Your task to perform on an android device: Search for the new lego star wars 2021 on Target Image 0: 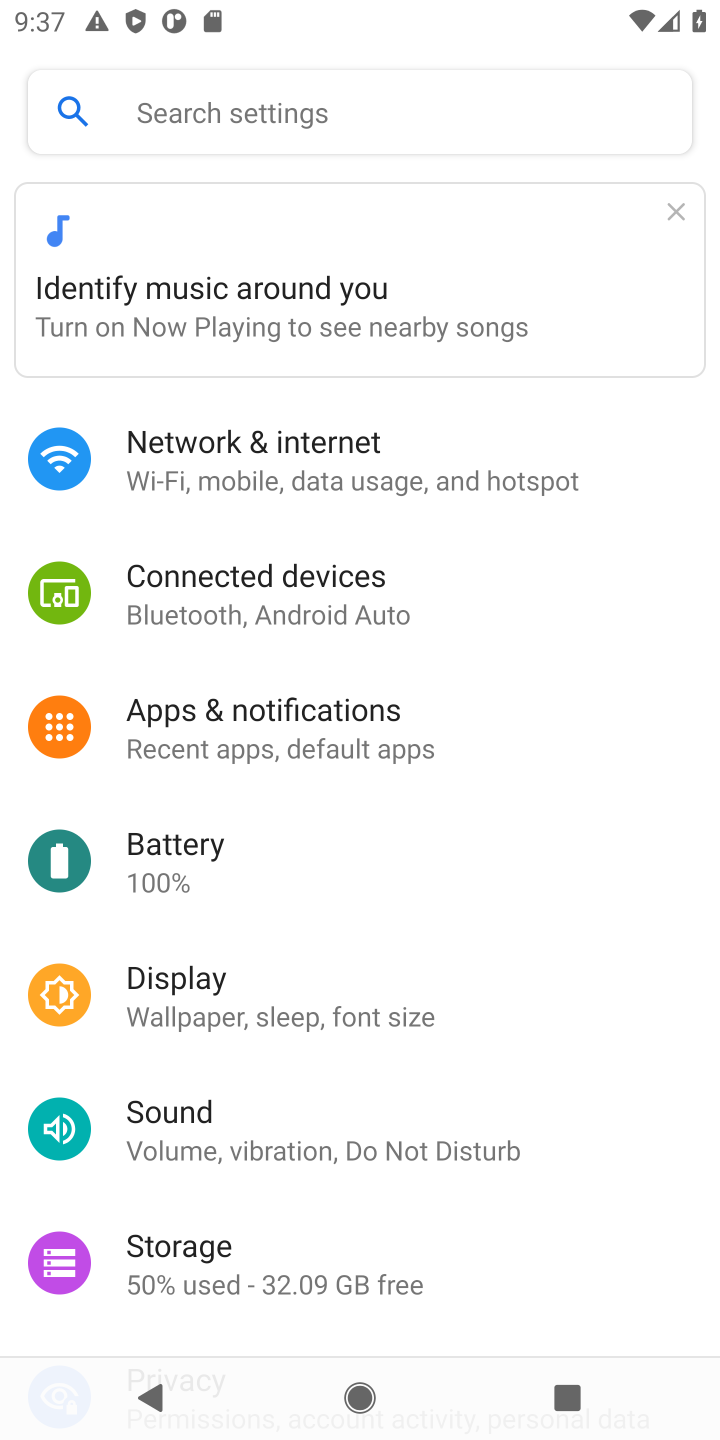
Step 0: press home button
Your task to perform on an android device: Search for the new lego star wars 2021 on Target Image 1: 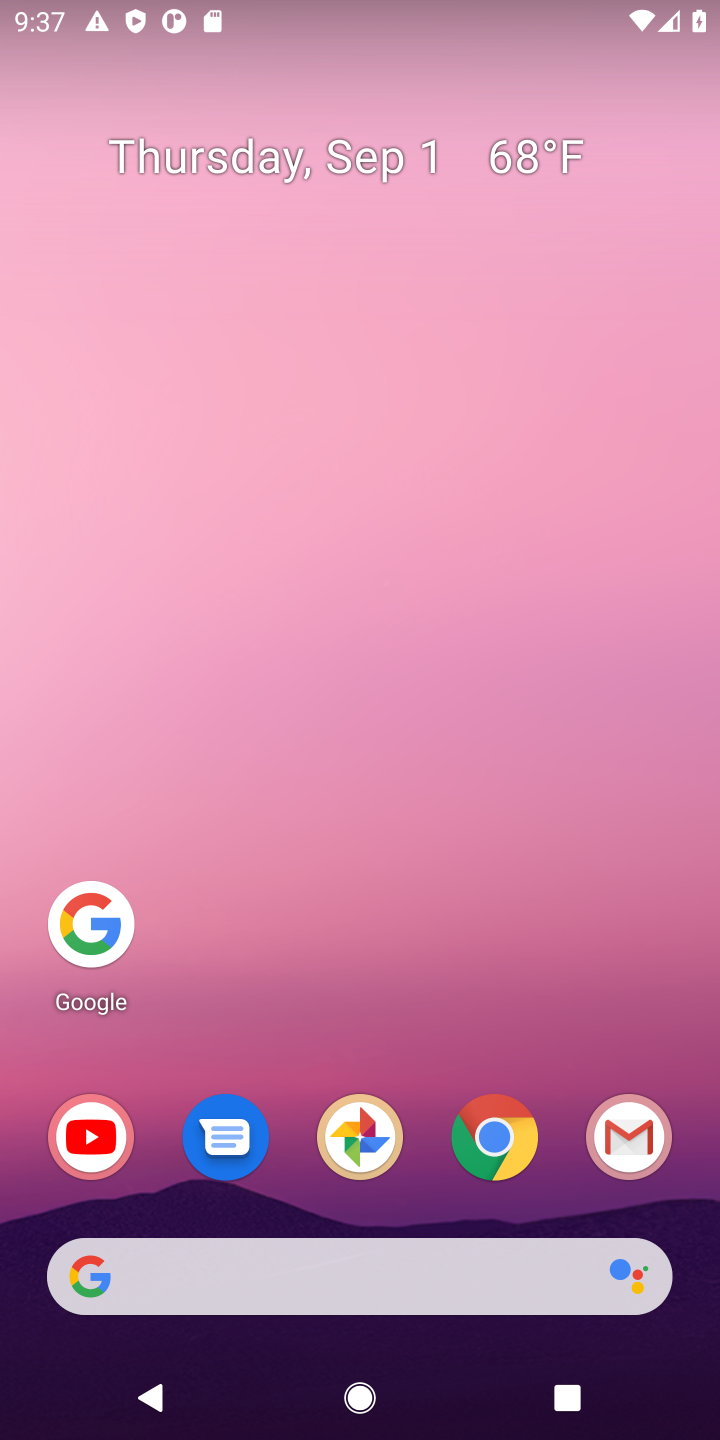
Step 1: click (60, 910)
Your task to perform on an android device: Search for the new lego star wars 2021 on Target Image 2: 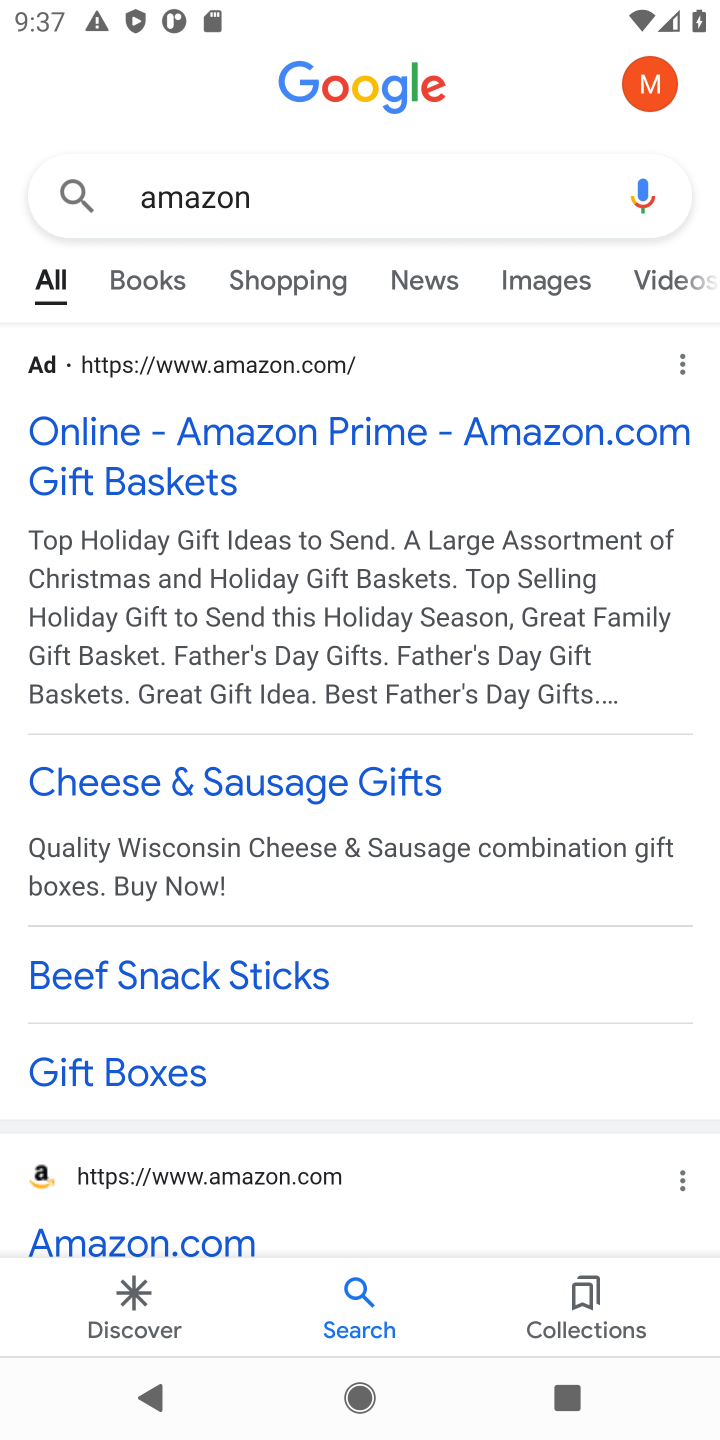
Step 2: click (387, 198)
Your task to perform on an android device: Search for the new lego star wars 2021 on Target Image 3: 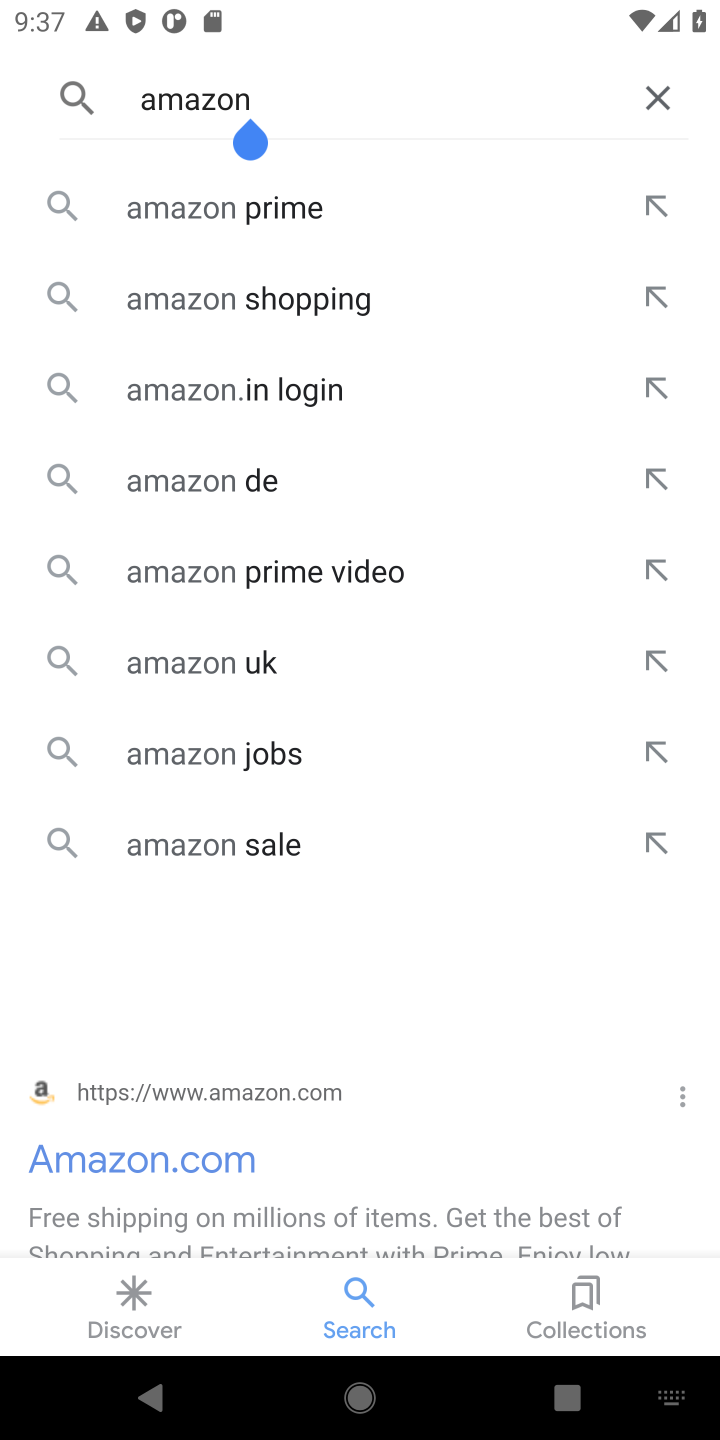
Step 3: click (387, 198)
Your task to perform on an android device: Search for the new lego star wars 2021 on Target Image 4: 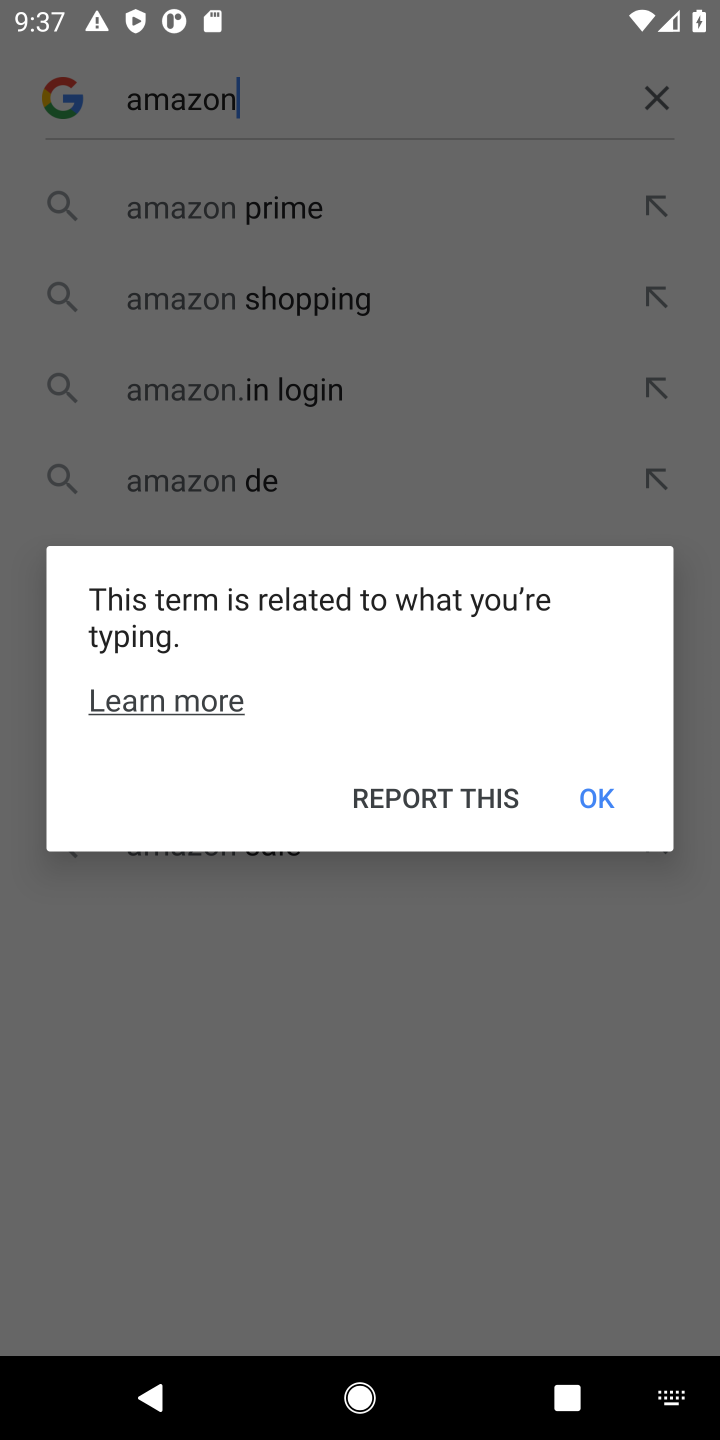
Step 4: click (652, 94)
Your task to perform on an android device: Search for the new lego star wars 2021 on Target Image 5: 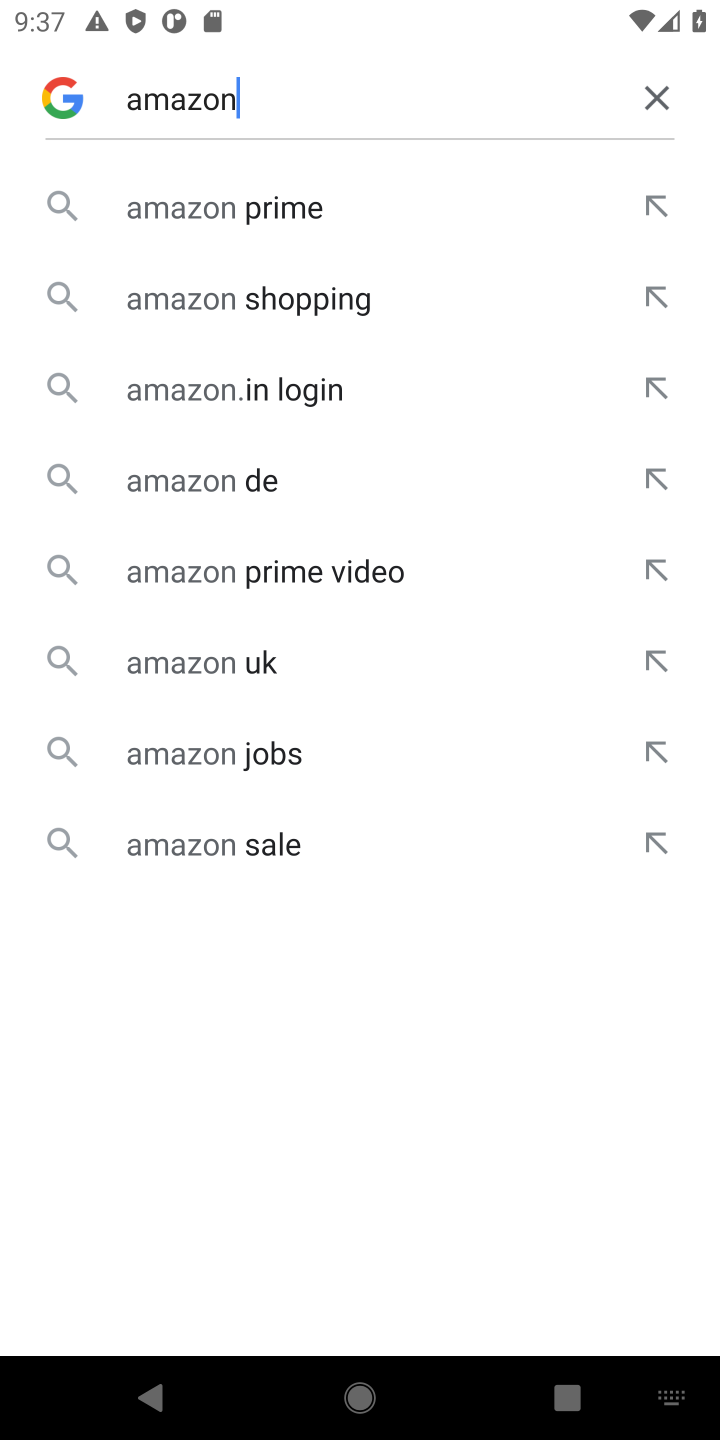
Step 5: click (649, 90)
Your task to perform on an android device: Search for the new lego star wars 2021 on Target Image 6: 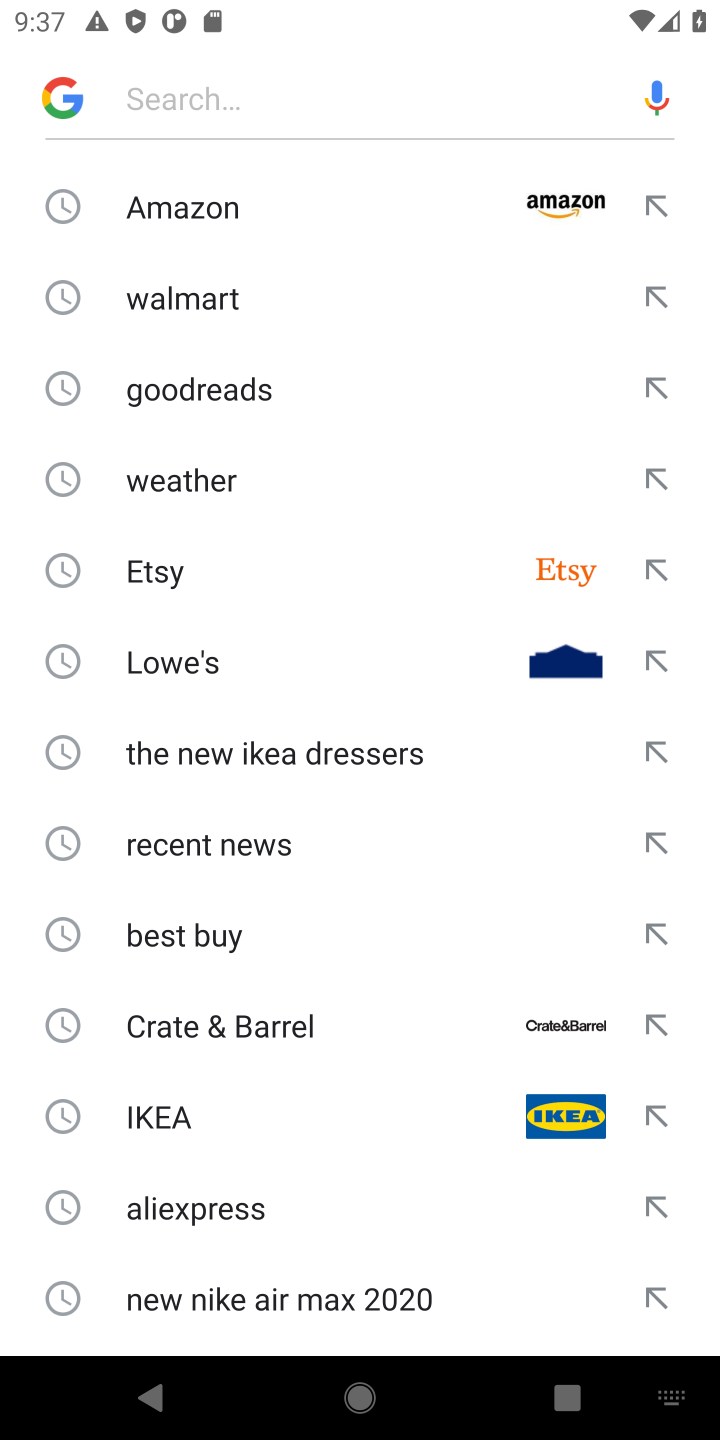
Step 6: type "target"
Your task to perform on an android device: Search for the new lego star wars 2021 on Target Image 7: 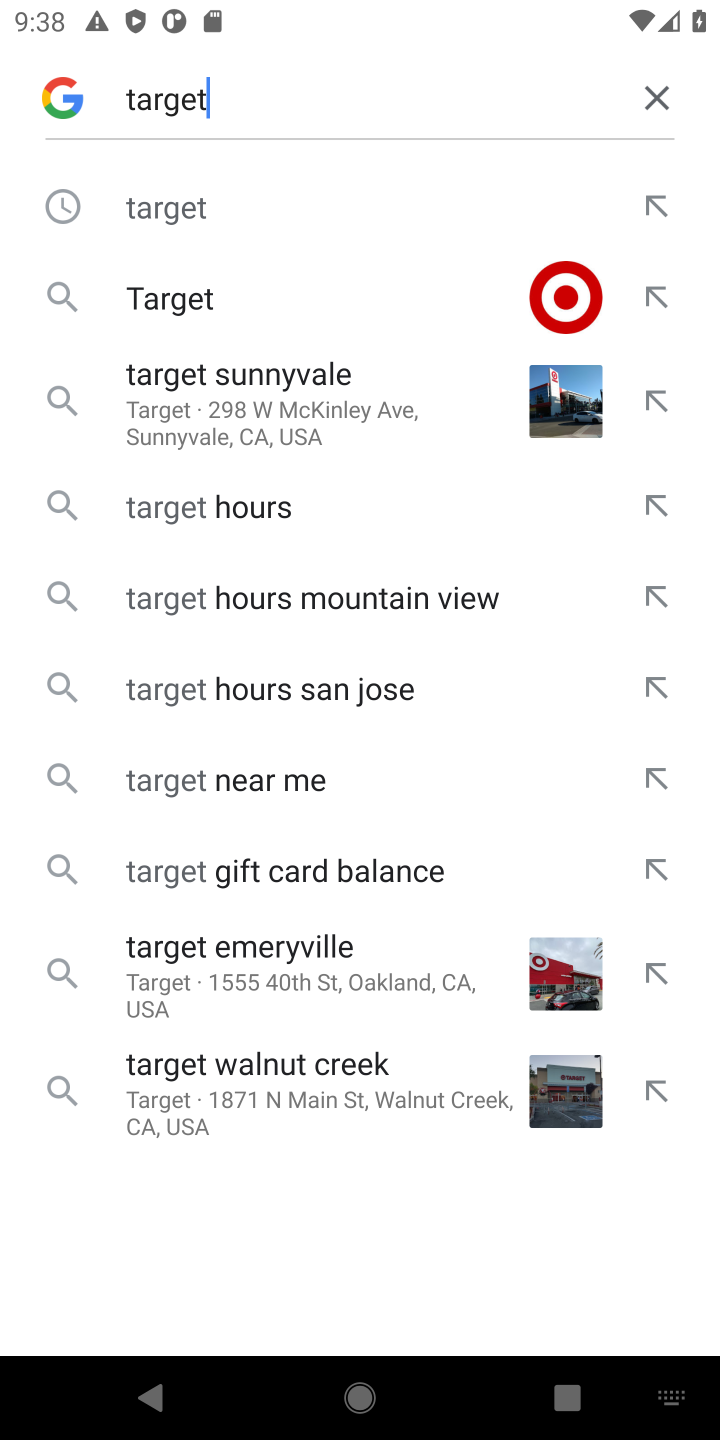
Step 7: click (183, 197)
Your task to perform on an android device: Search for the new lego star wars 2021 on Target Image 8: 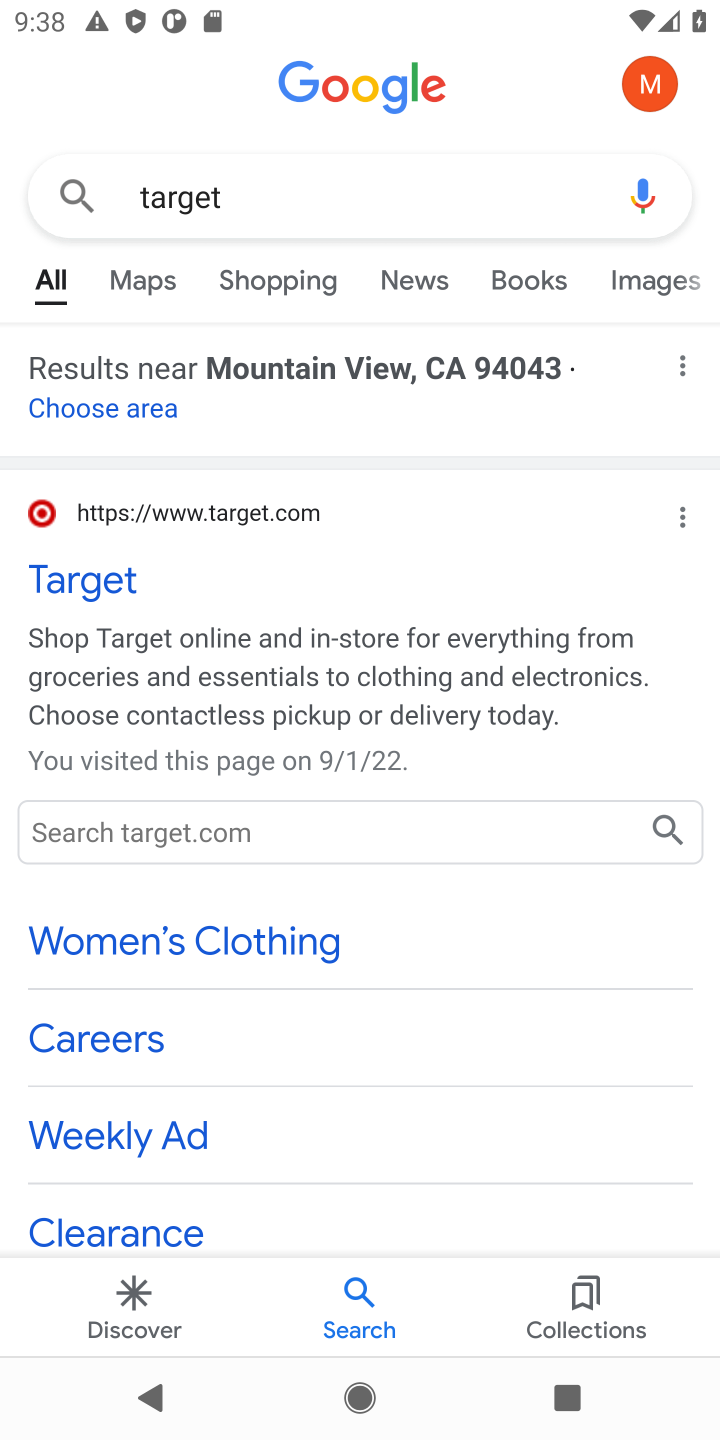
Step 8: click (93, 580)
Your task to perform on an android device: Search for the new lego star wars 2021 on Target Image 9: 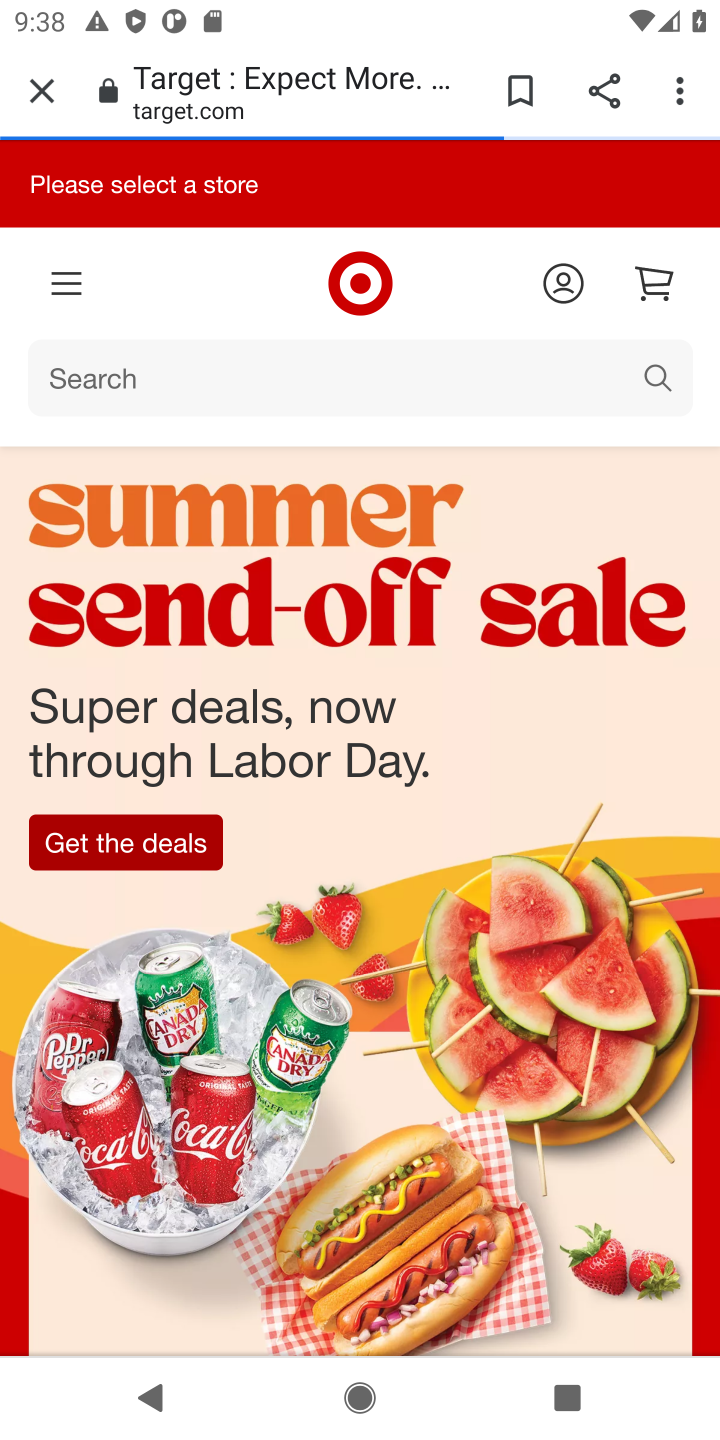
Step 9: click (345, 394)
Your task to perform on an android device: Search for the new lego star wars 2021 on Target Image 10: 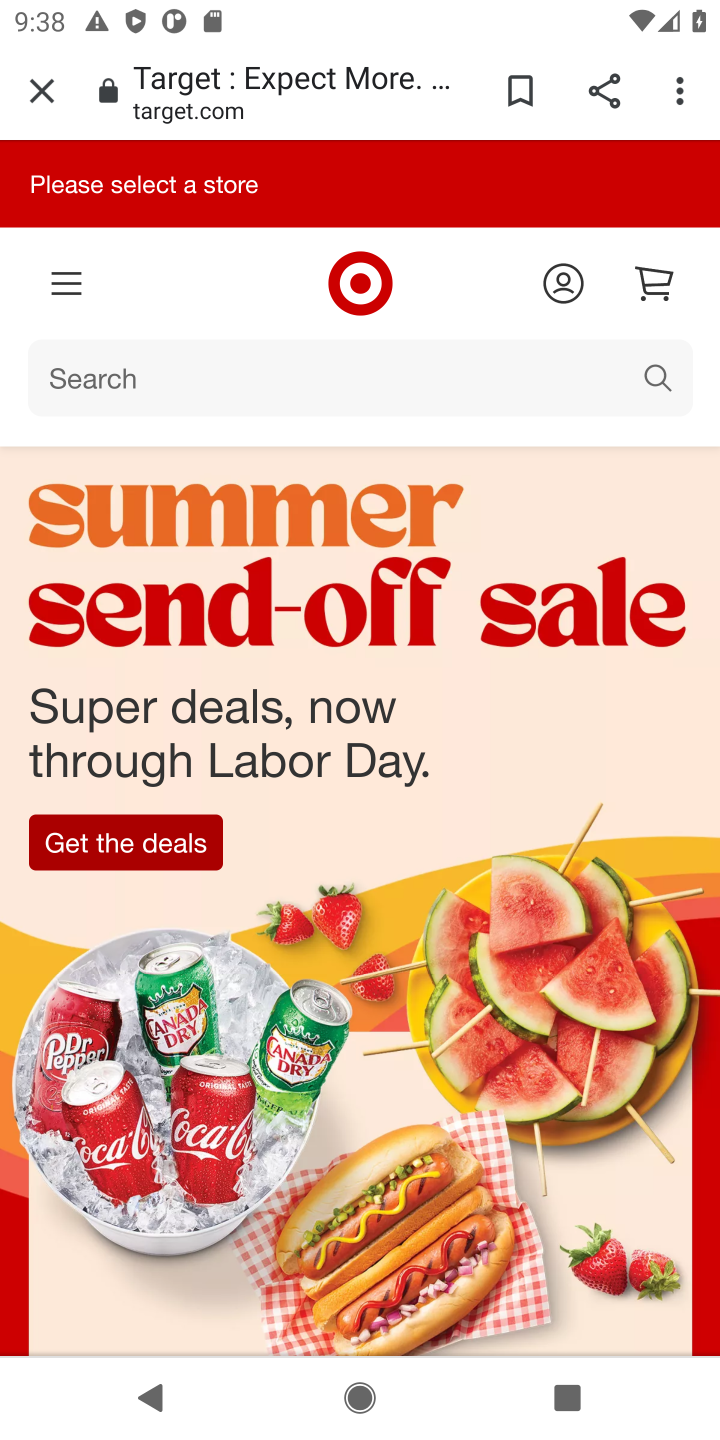
Step 10: click (666, 374)
Your task to perform on an android device: Search for the new lego star wars 2021 on Target Image 11: 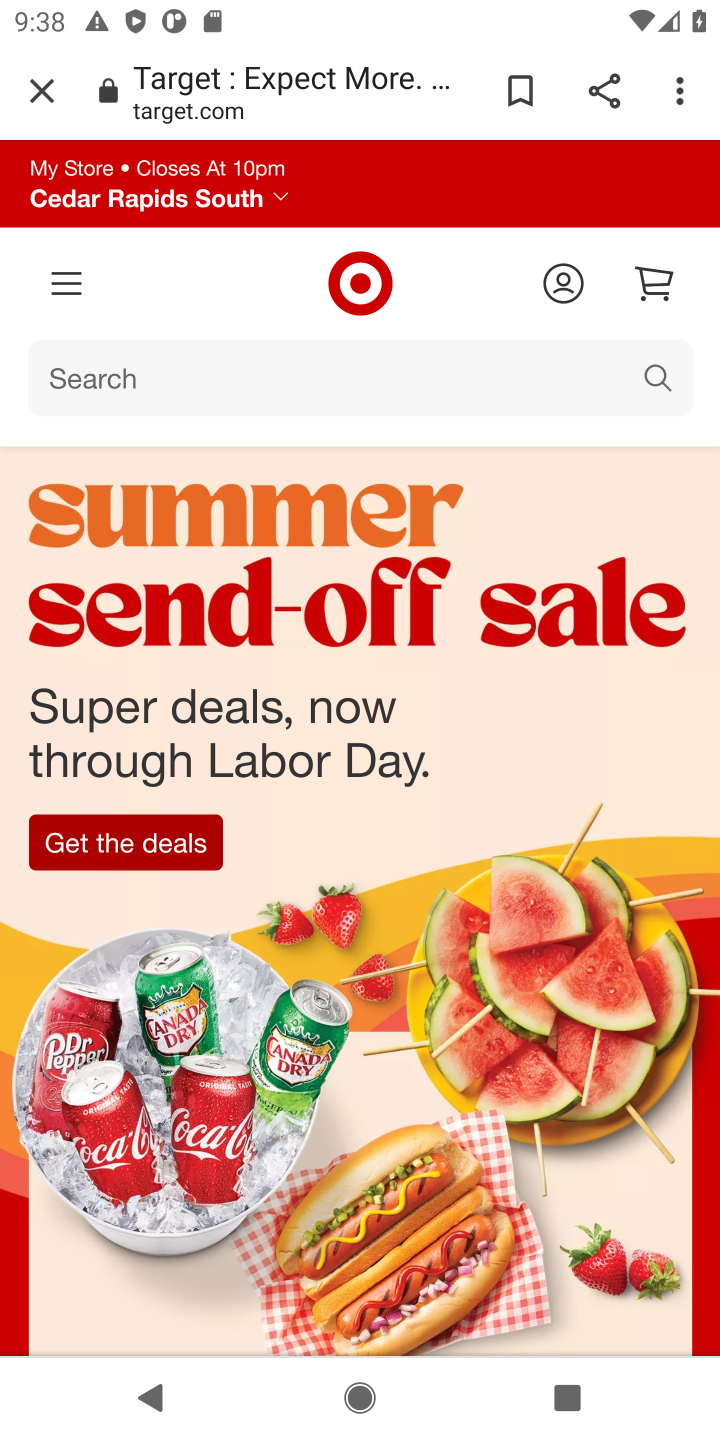
Step 11: click (652, 375)
Your task to perform on an android device: Search for the new lego star wars 2021 on Target Image 12: 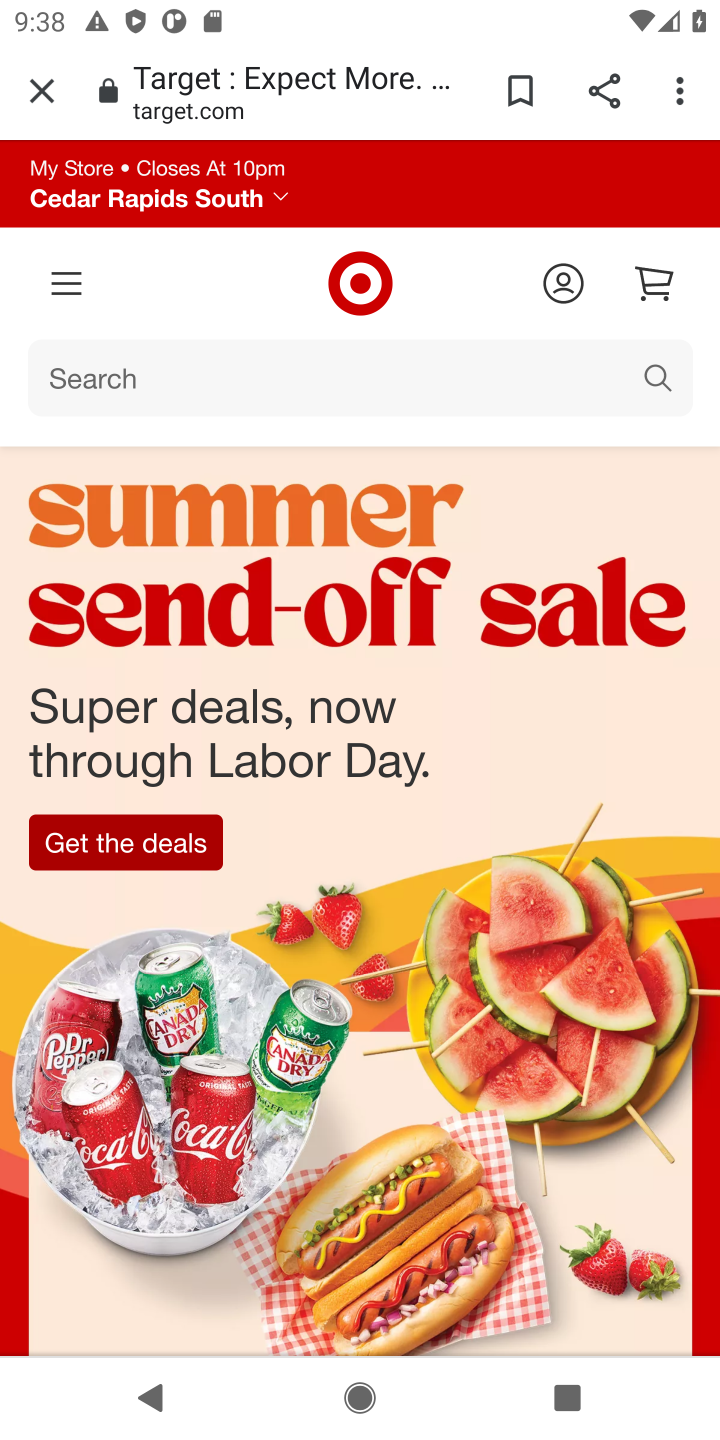
Step 12: click (84, 371)
Your task to perform on an android device: Search for the new lego star wars 2021 on Target Image 13: 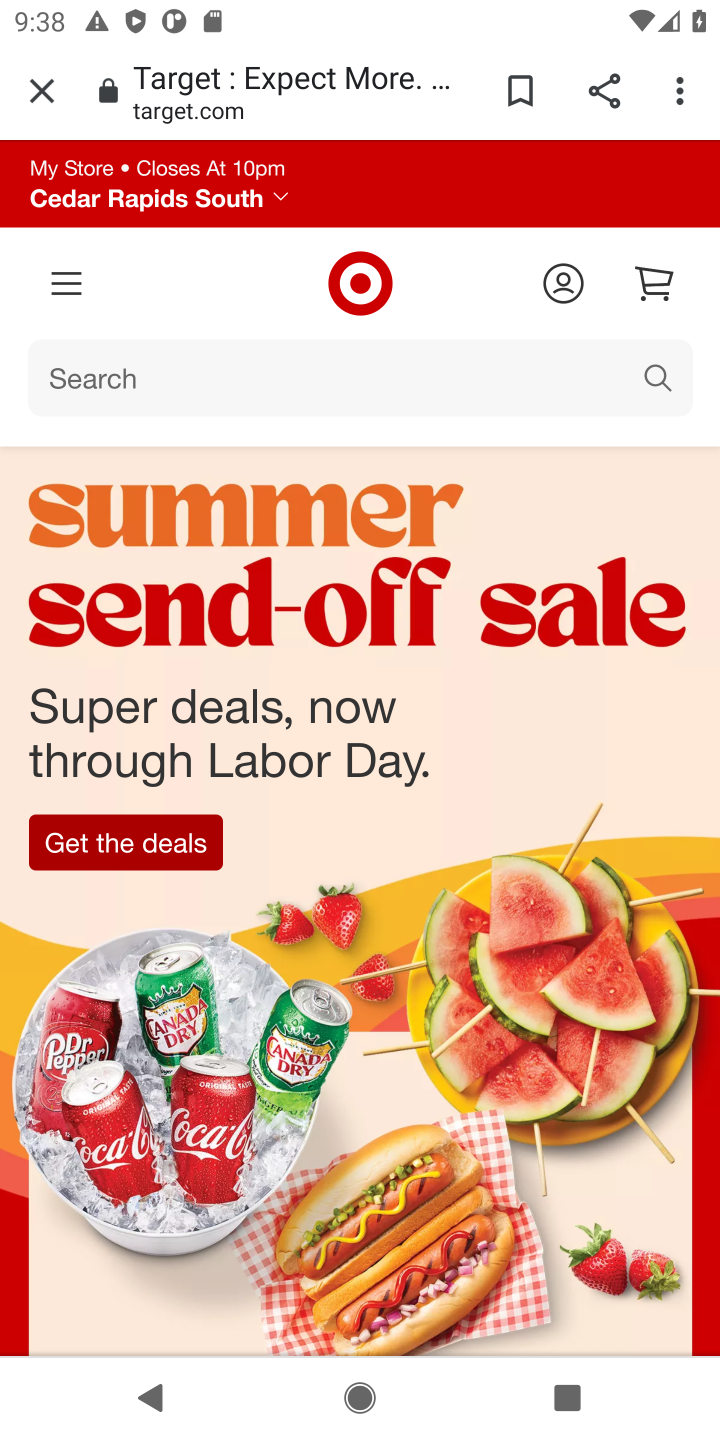
Step 13: click (651, 368)
Your task to perform on an android device: Search for the new lego star wars 2021 on Target Image 14: 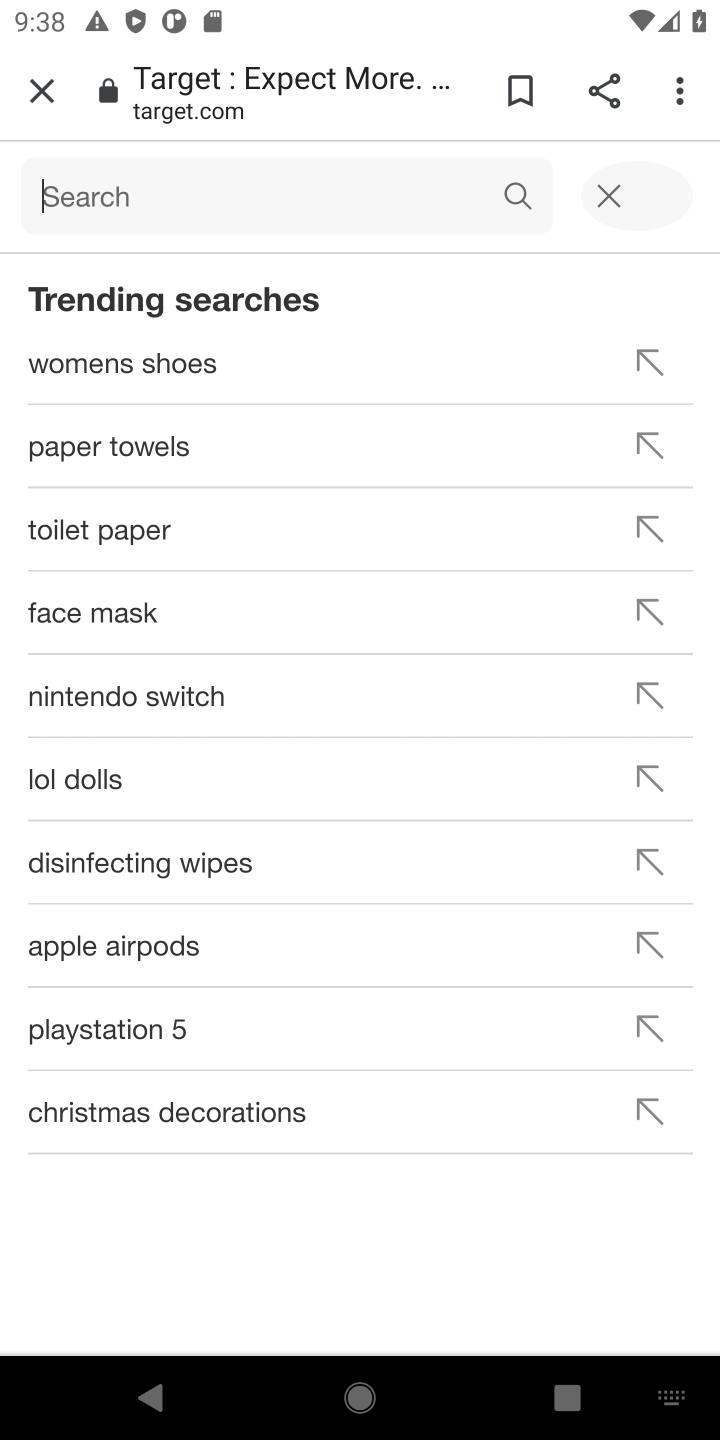
Step 14: type " new lego star wars 2021"
Your task to perform on an android device: Search for the new lego star wars 2021 on Target Image 15: 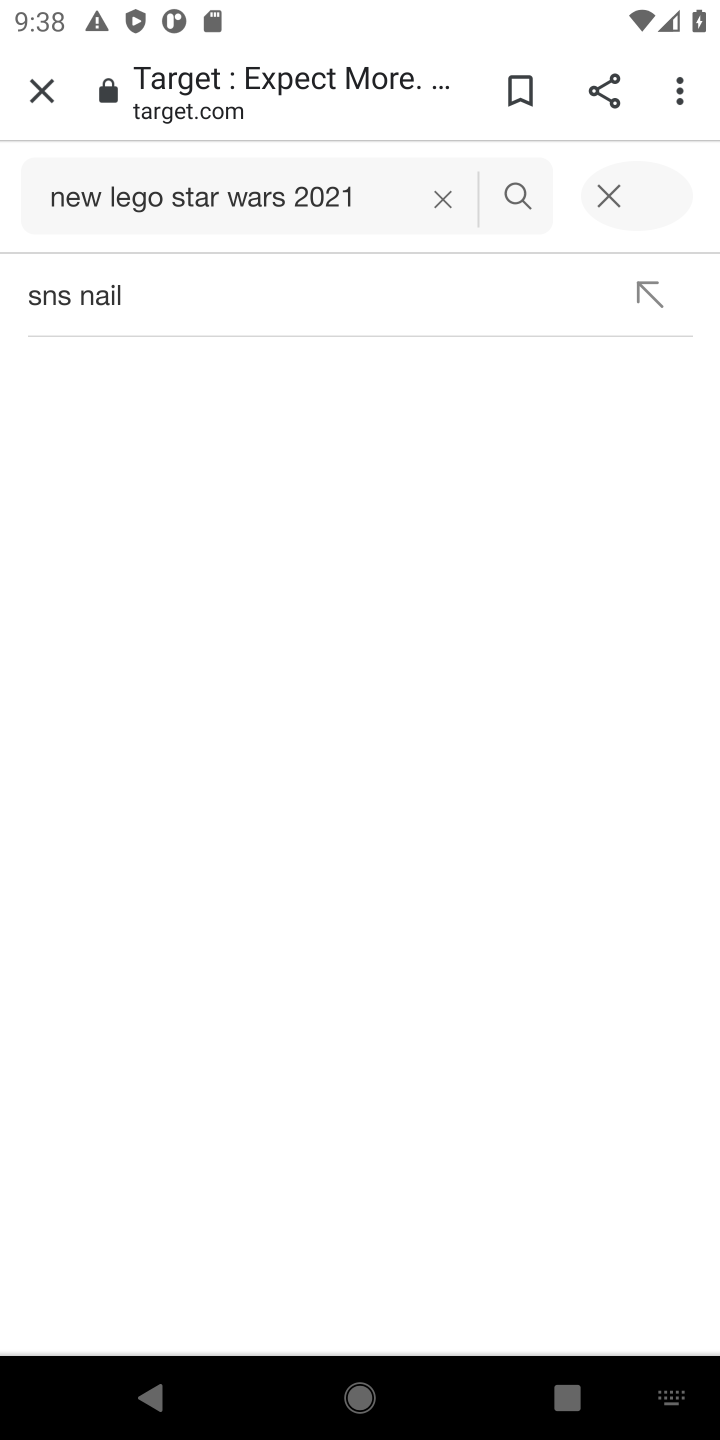
Step 15: click (507, 194)
Your task to perform on an android device: Search for the new lego star wars 2021 on Target Image 16: 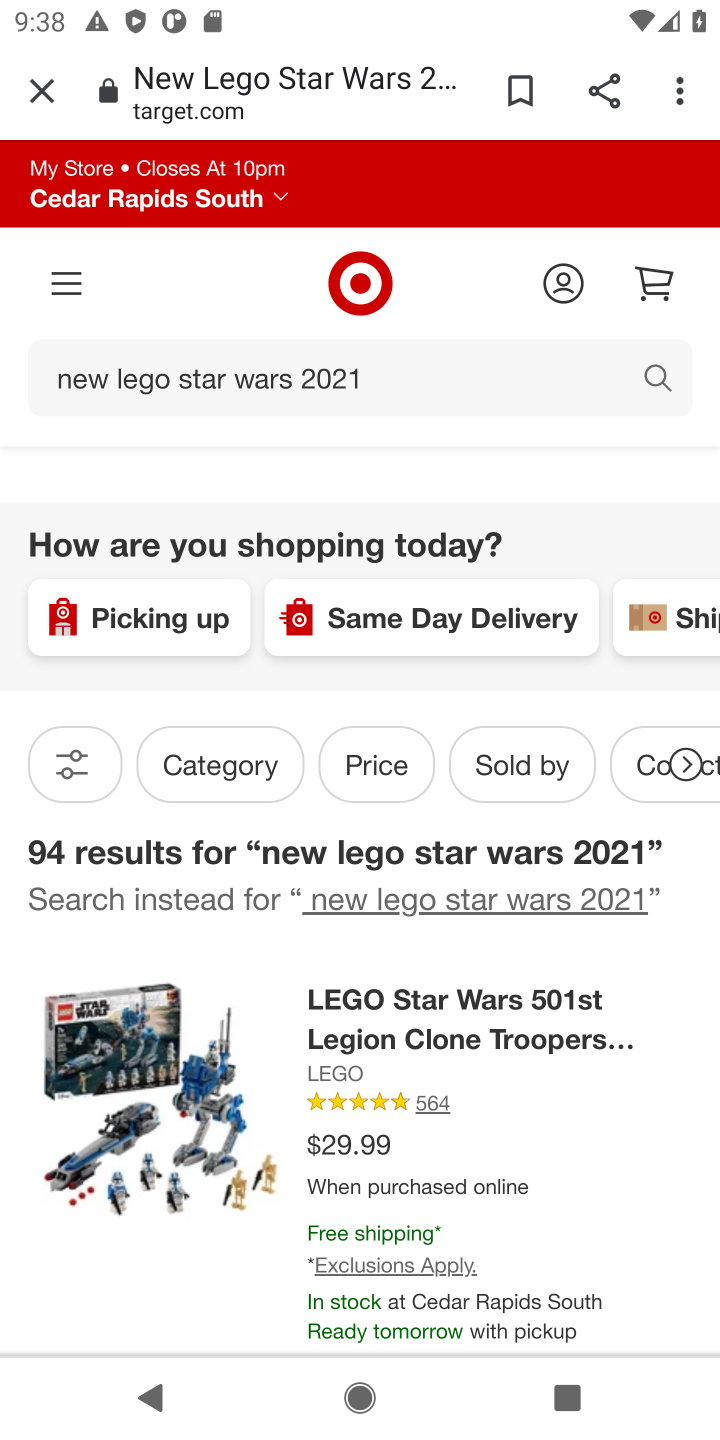
Step 16: task complete